Your task to perform on an android device: Toggle the flashlight Image 0: 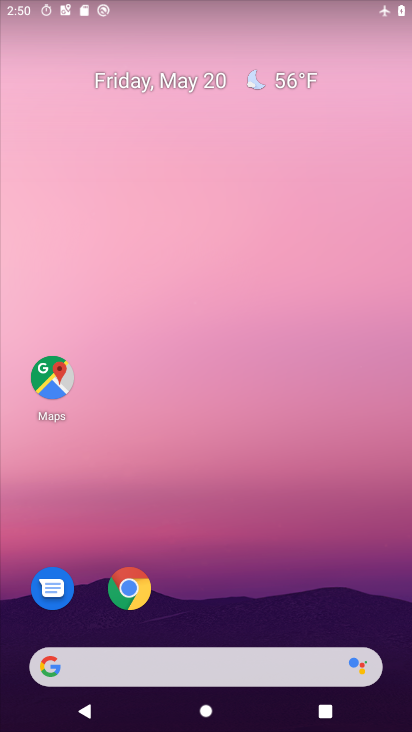
Step 0: press home button
Your task to perform on an android device: Toggle the flashlight Image 1: 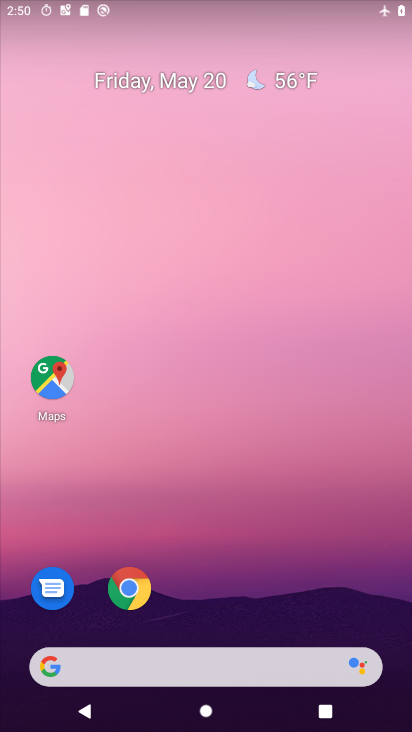
Step 1: drag from (62, 488) to (235, 171)
Your task to perform on an android device: Toggle the flashlight Image 2: 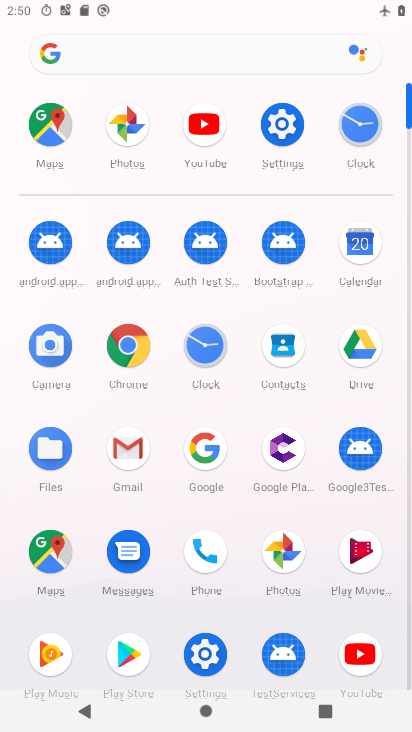
Step 2: click (284, 106)
Your task to perform on an android device: Toggle the flashlight Image 3: 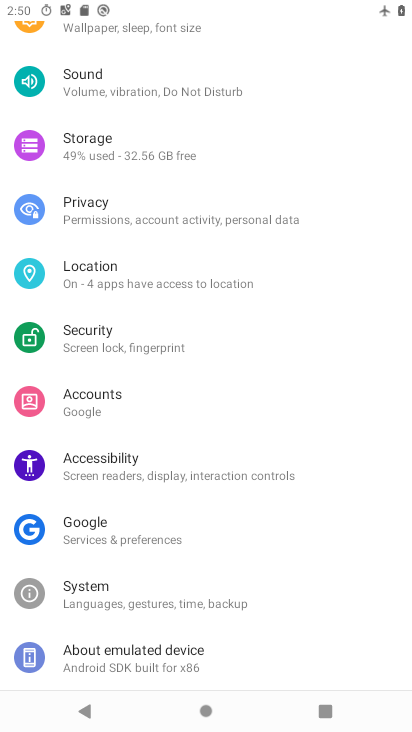
Step 3: task complete